Your task to perform on an android device: turn on wifi Image 0: 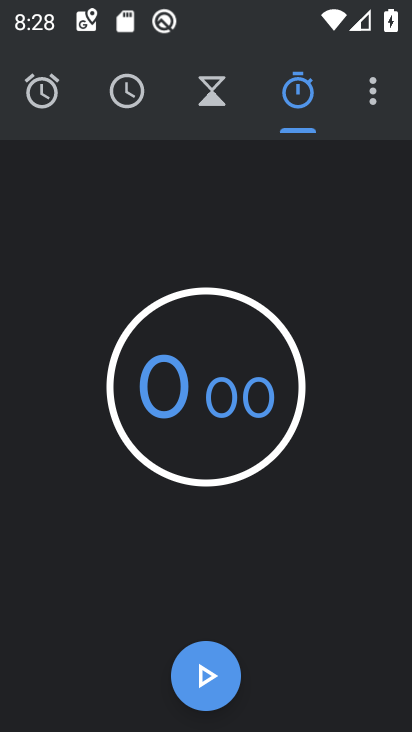
Step 0: press home button
Your task to perform on an android device: turn on wifi Image 1: 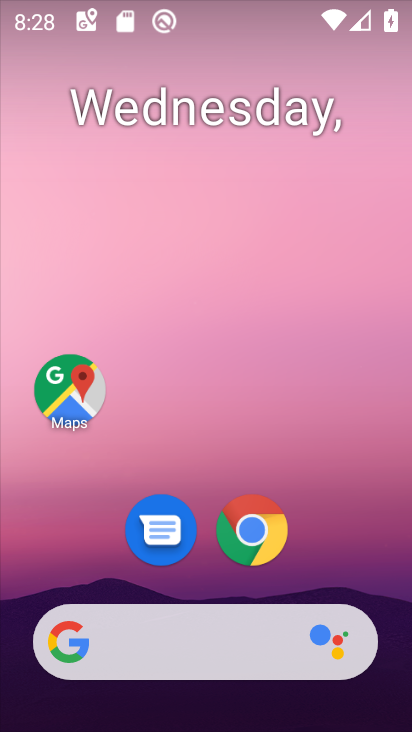
Step 1: drag from (396, 645) to (336, 61)
Your task to perform on an android device: turn on wifi Image 2: 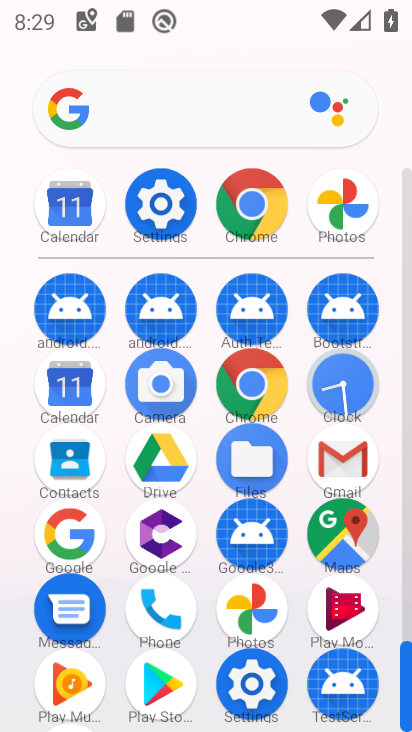
Step 2: click (172, 206)
Your task to perform on an android device: turn on wifi Image 3: 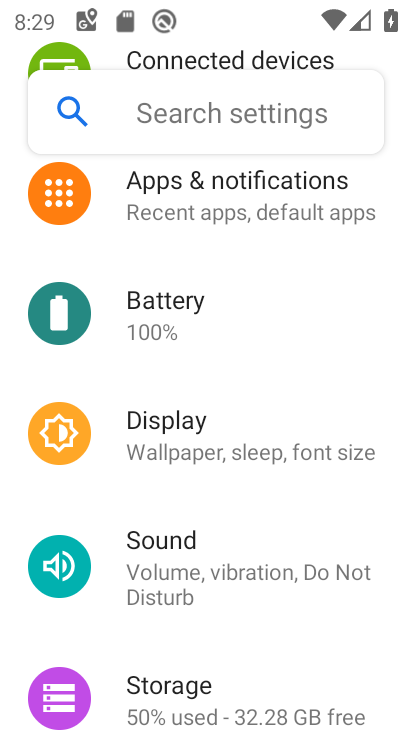
Step 3: drag from (172, 206) to (121, 640)
Your task to perform on an android device: turn on wifi Image 4: 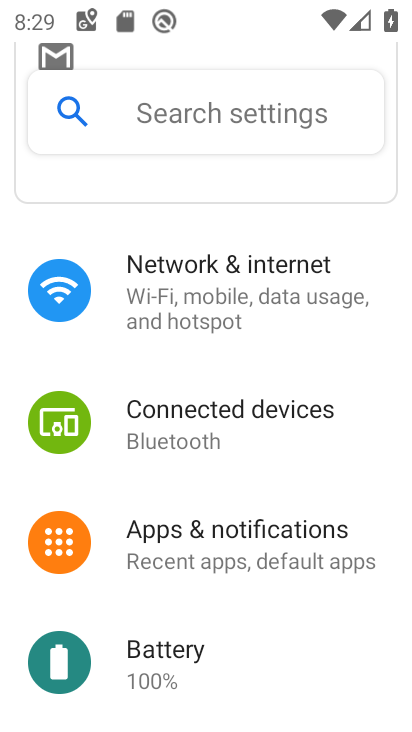
Step 4: click (219, 331)
Your task to perform on an android device: turn on wifi Image 5: 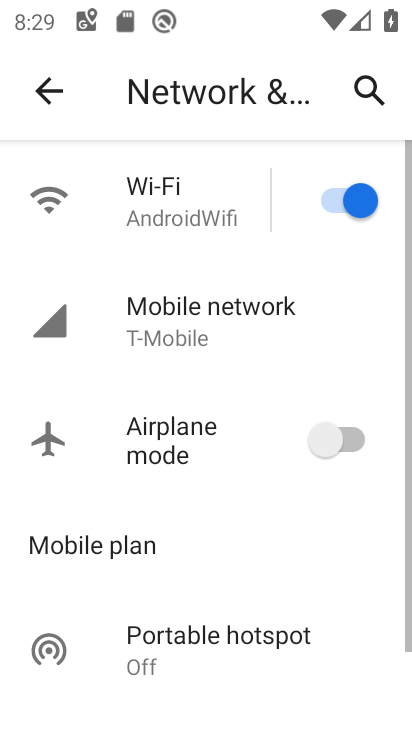
Step 5: click (190, 153)
Your task to perform on an android device: turn on wifi Image 6: 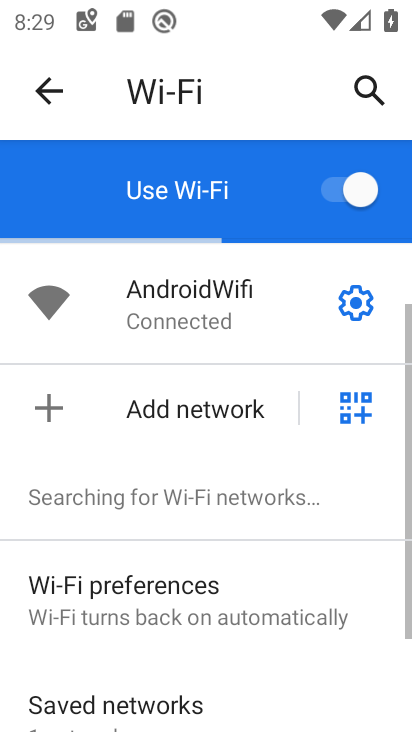
Step 6: task complete